Your task to perform on an android device: Go to location settings Image 0: 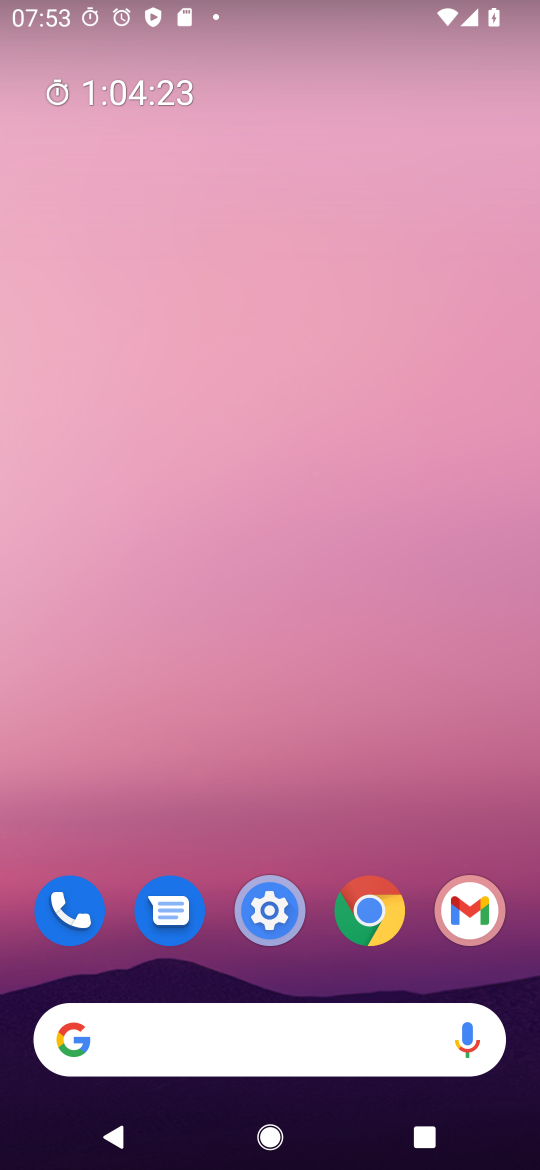
Step 0: drag from (204, 1021) to (251, 12)
Your task to perform on an android device: Go to location settings Image 1: 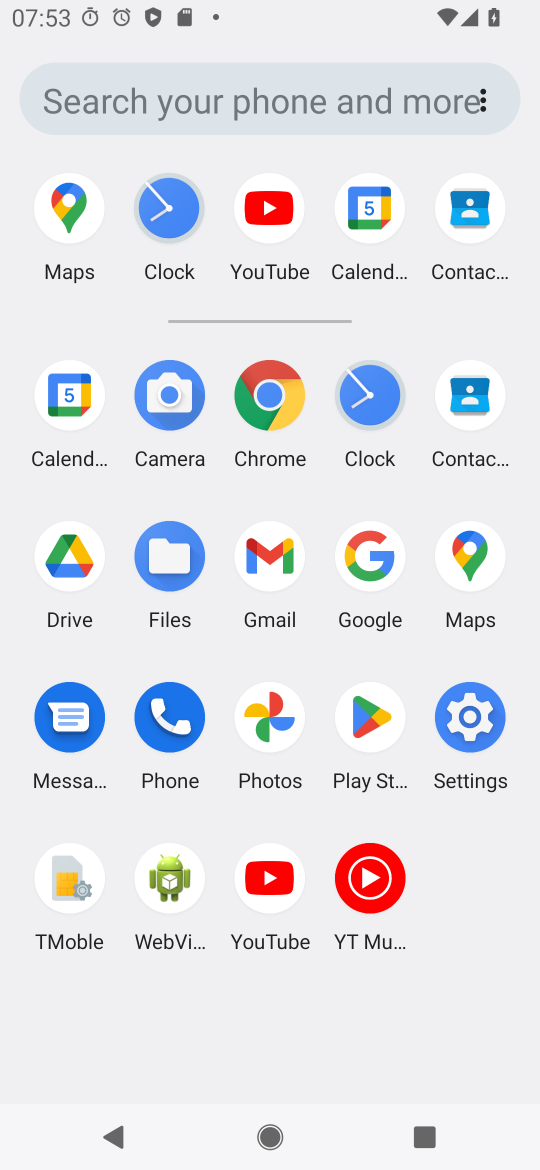
Step 1: click (463, 701)
Your task to perform on an android device: Go to location settings Image 2: 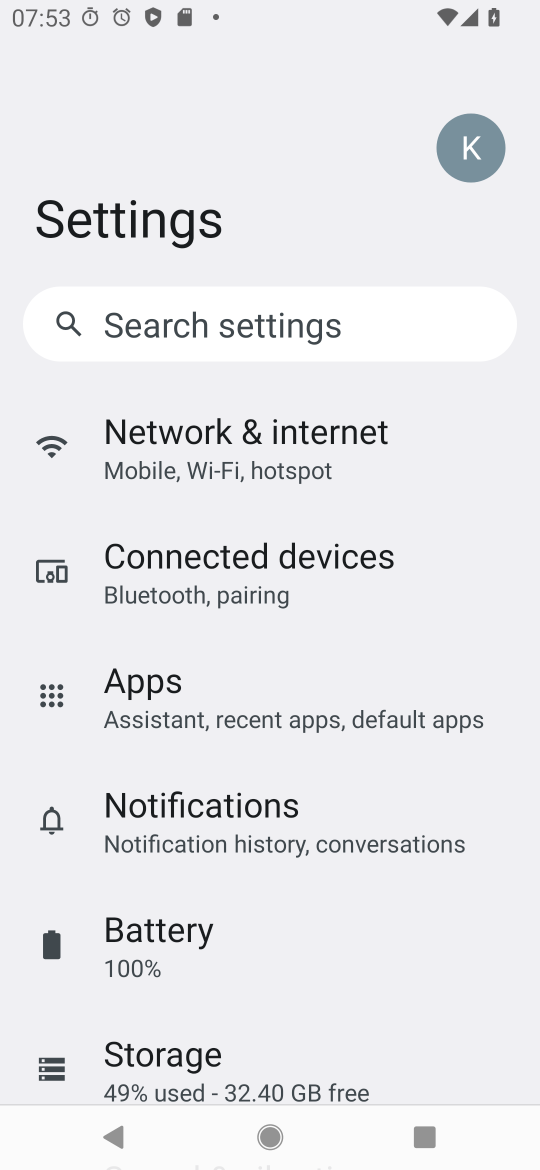
Step 2: drag from (212, 980) to (271, 259)
Your task to perform on an android device: Go to location settings Image 3: 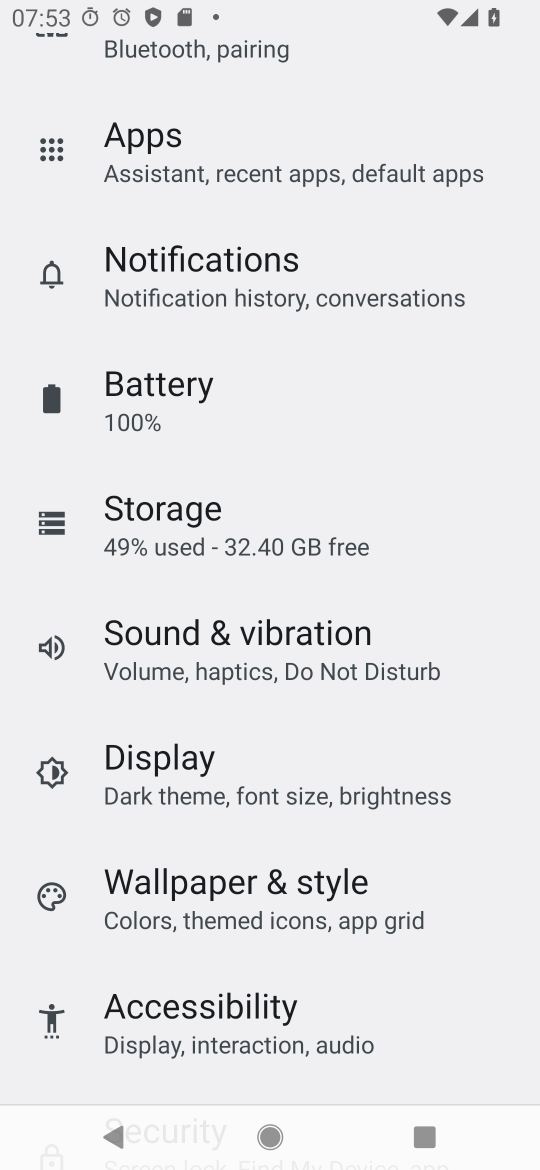
Step 3: drag from (218, 1005) to (232, 470)
Your task to perform on an android device: Go to location settings Image 4: 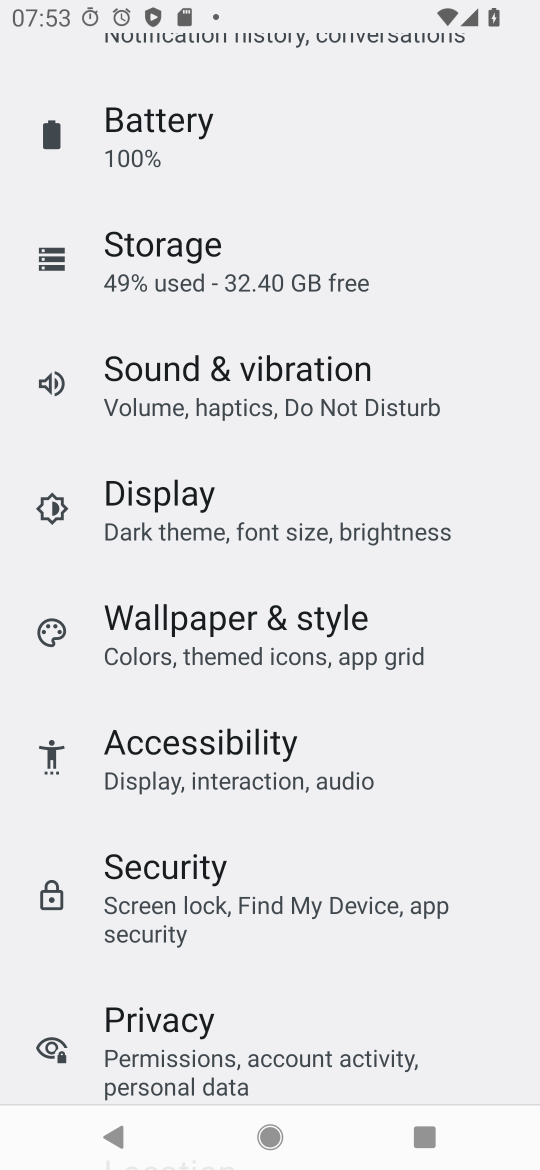
Step 4: drag from (196, 1032) to (282, 301)
Your task to perform on an android device: Go to location settings Image 5: 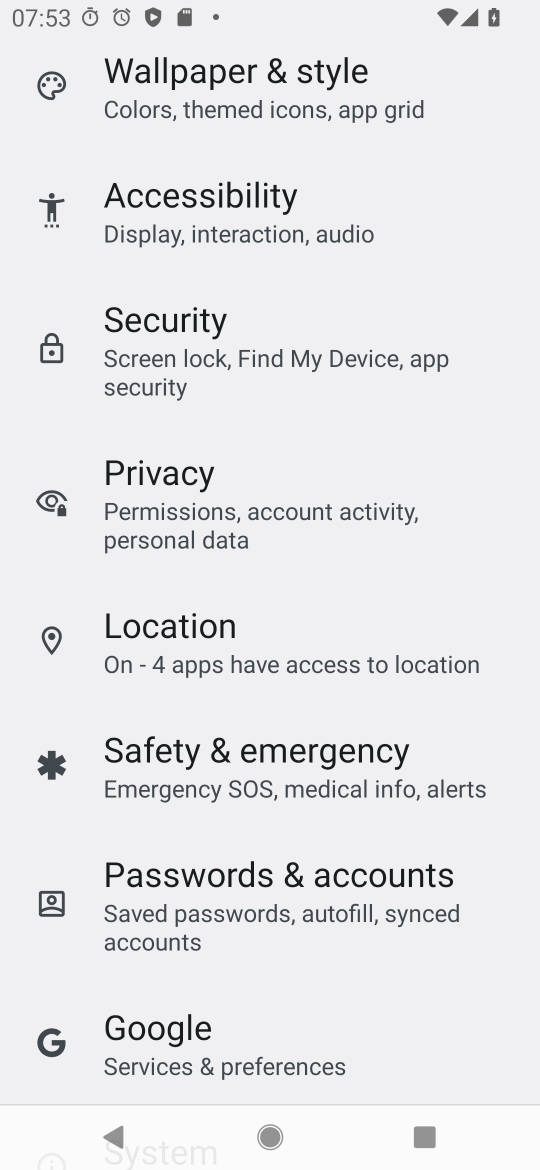
Step 5: click (169, 643)
Your task to perform on an android device: Go to location settings Image 6: 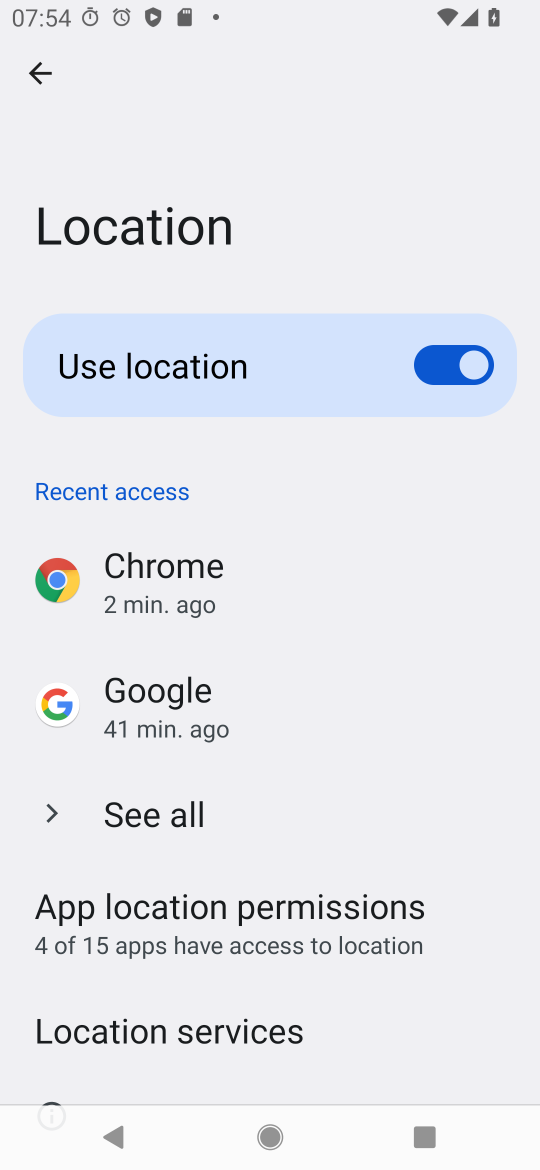
Step 6: task complete